Your task to perform on an android device: add a contact in the contacts app Image 0: 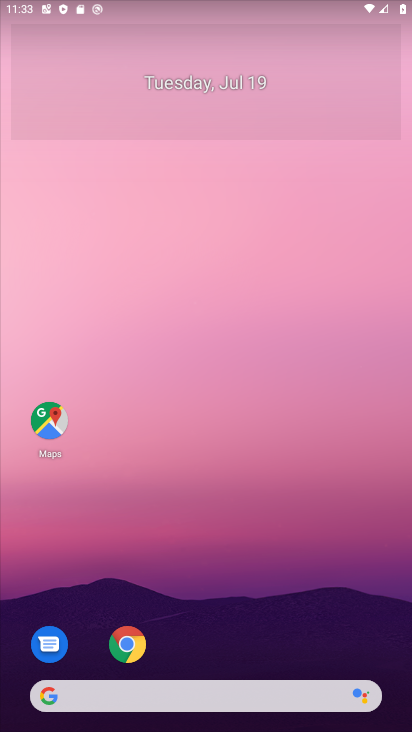
Step 0: drag from (66, 629) to (301, 16)
Your task to perform on an android device: add a contact in the contacts app Image 1: 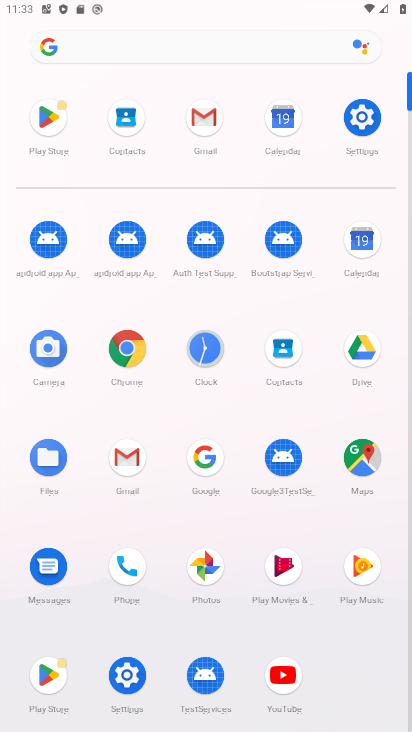
Step 1: click (271, 366)
Your task to perform on an android device: add a contact in the contacts app Image 2: 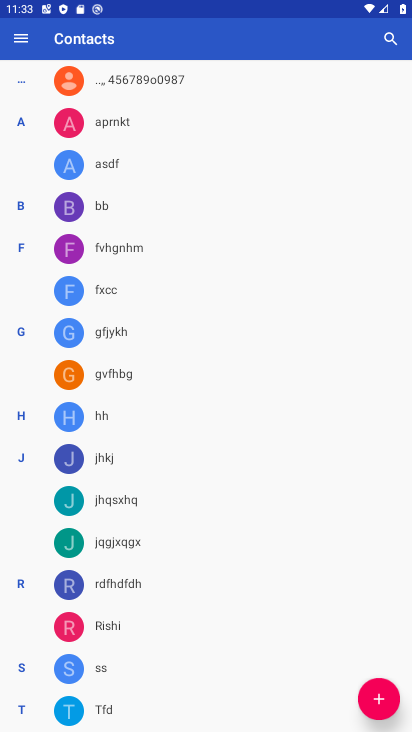
Step 2: click (382, 697)
Your task to perform on an android device: add a contact in the contacts app Image 3: 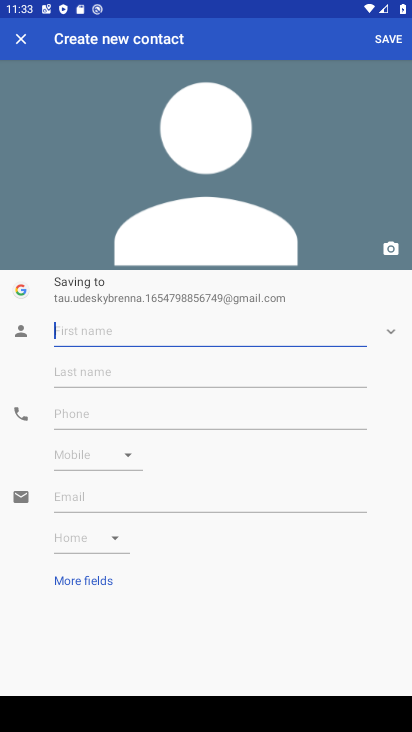
Step 3: type "fhdffhrsd"
Your task to perform on an android device: add a contact in the contacts app Image 4: 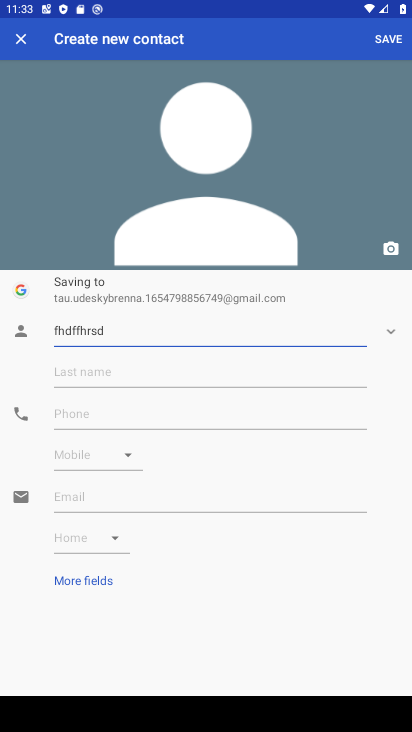
Step 4: click (390, 36)
Your task to perform on an android device: add a contact in the contacts app Image 5: 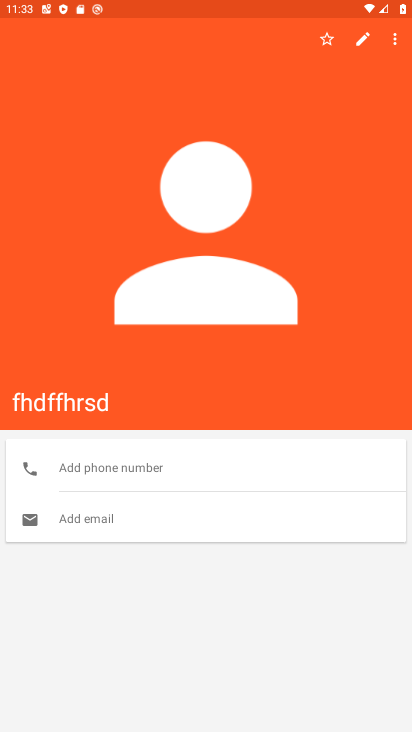
Step 5: task complete